Your task to perform on an android device: empty trash in the gmail app Image 0: 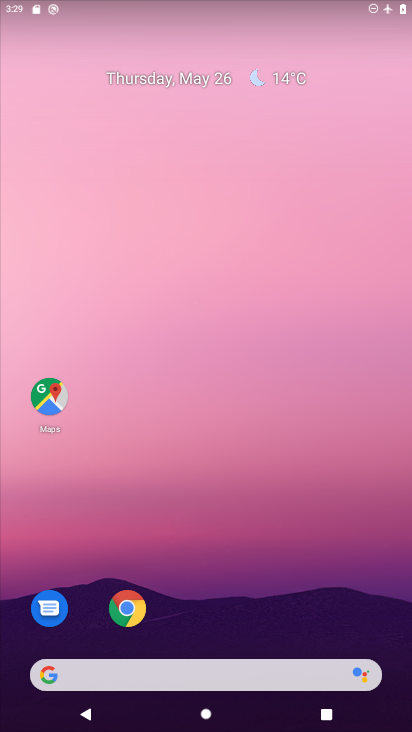
Step 0: drag from (290, 435) to (273, 83)
Your task to perform on an android device: empty trash in the gmail app Image 1: 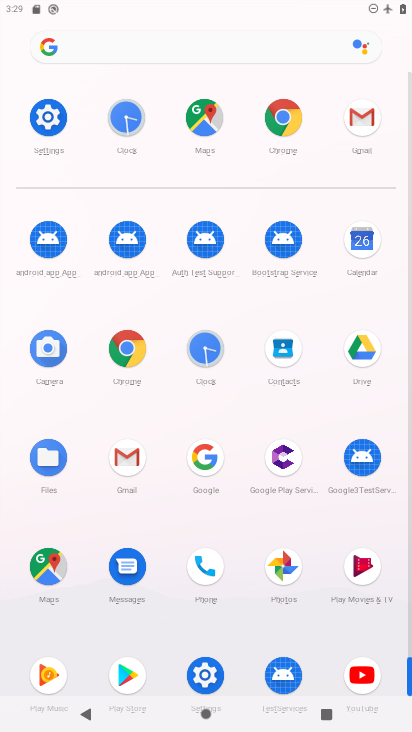
Step 1: click (353, 114)
Your task to perform on an android device: empty trash in the gmail app Image 2: 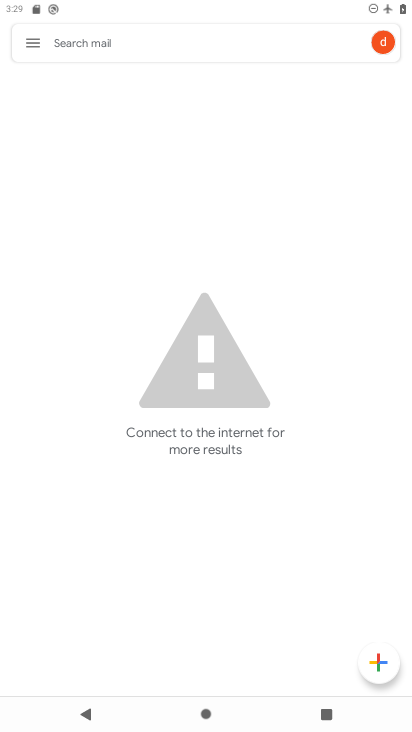
Step 2: click (36, 41)
Your task to perform on an android device: empty trash in the gmail app Image 3: 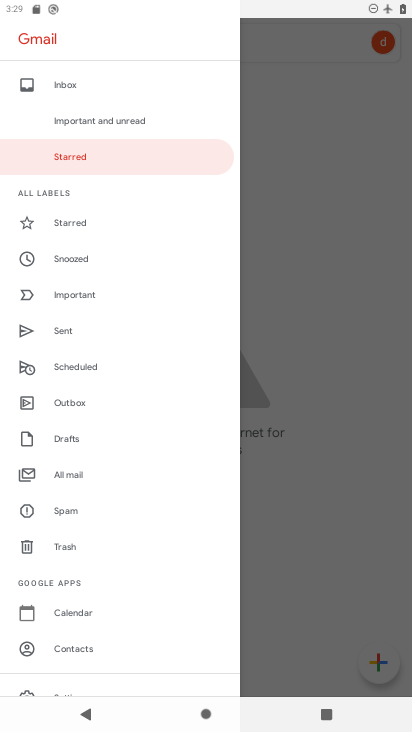
Step 3: click (89, 549)
Your task to perform on an android device: empty trash in the gmail app Image 4: 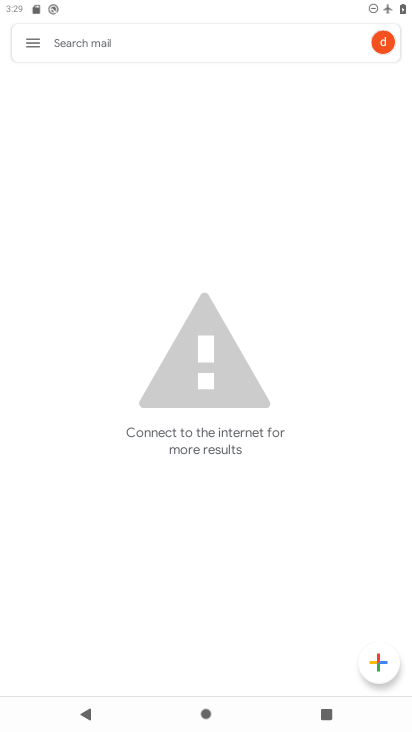
Step 4: task complete